Your task to perform on an android device: turn on airplane mode Image 0: 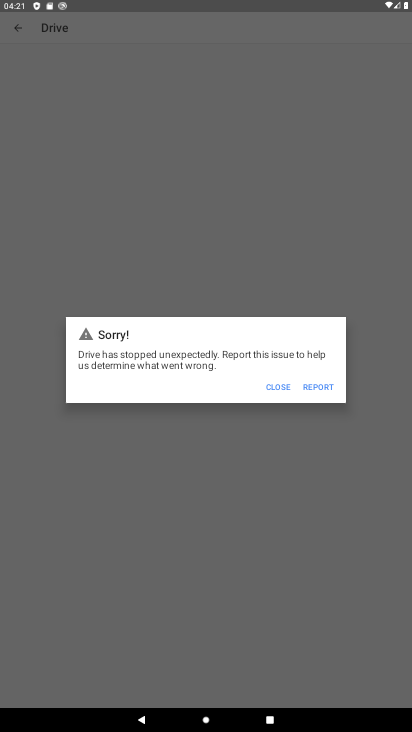
Step 0: press home button
Your task to perform on an android device: turn on airplane mode Image 1: 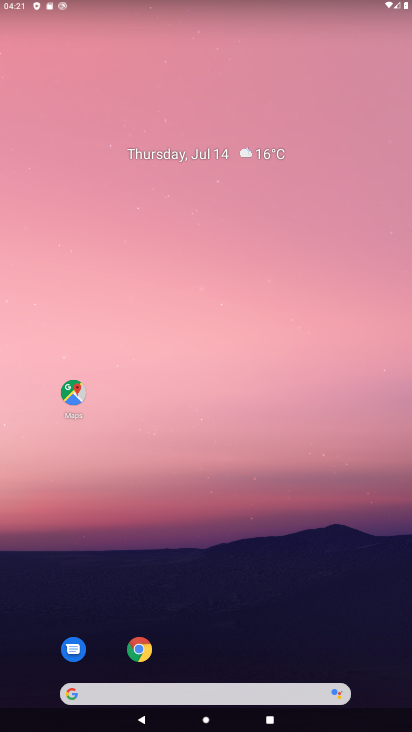
Step 1: drag from (224, 593) to (248, 4)
Your task to perform on an android device: turn on airplane mode Image 2: 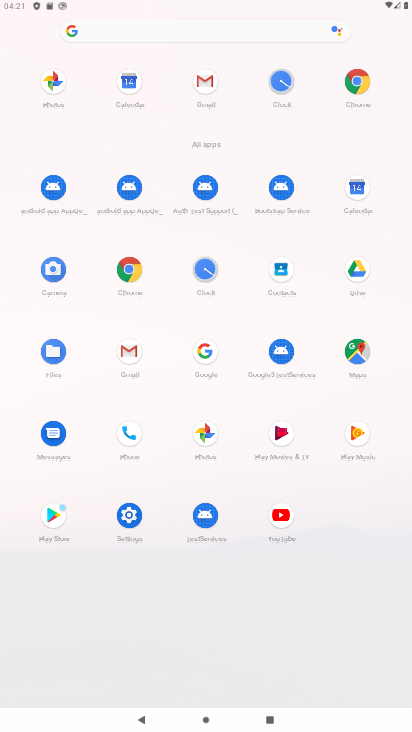
Step 2: click (123, 512)
Your task to perform on an android device: turn on airplane mode Image 3: 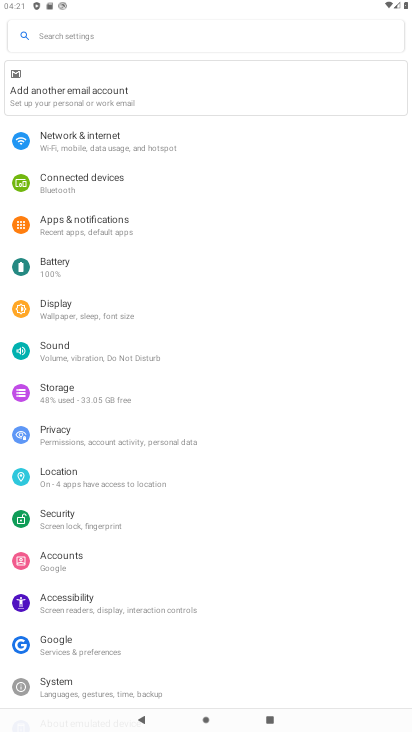
Step 3: click (72, 138)
Your task to perform on an android device: turn on airplane mode Image 4: 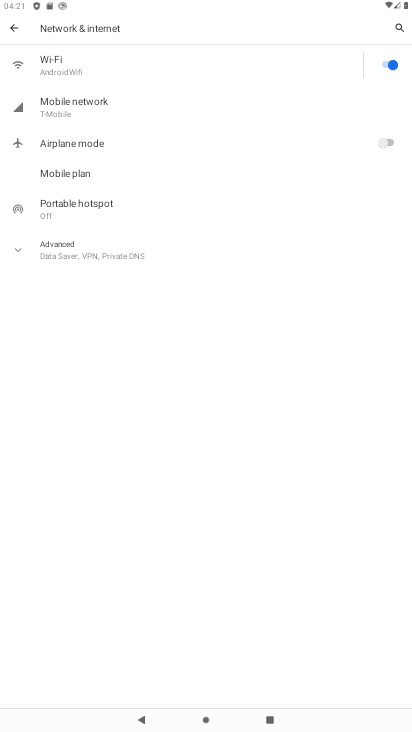
Step 4: click (388, 142)
Your task to perform on an android device: turn on airplane mode Image 5: 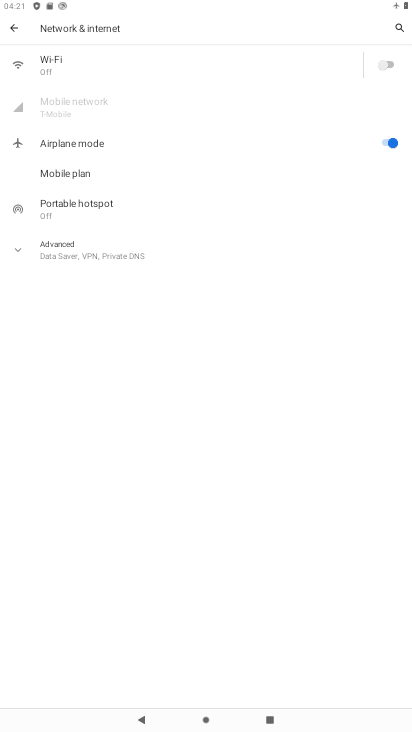
Step 5: task complete